Your task to perform on an android device: delete the emails in spam in the gmail app Image 0: 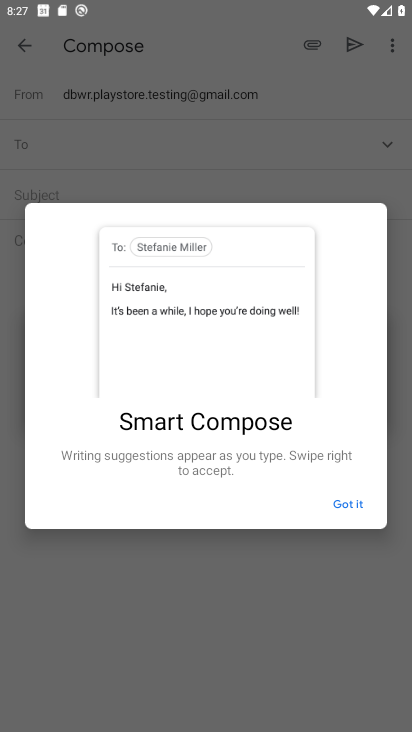
Step 0: press home button
Your task to perform on an android device: delete the emails in spam in the gmail app Image 1: 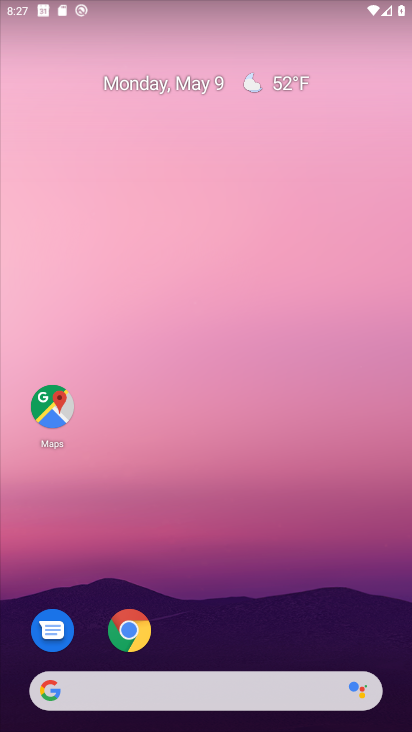
Step 1: drag from (195, 640) to (257, 100)
Your task to perform on an android device: delete the emails in spam in the gmail app Image 2: 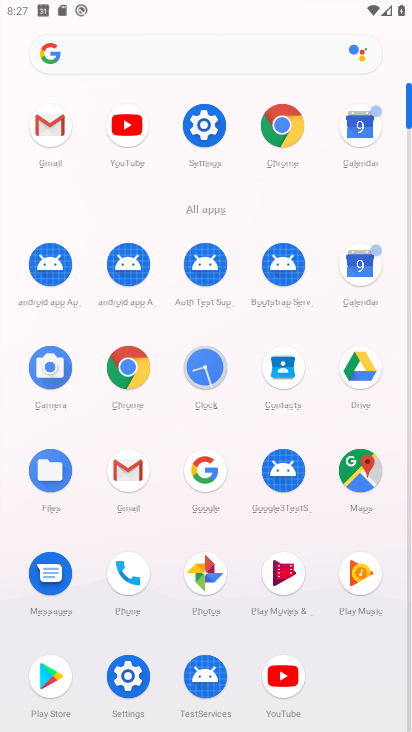
Step 2: click (135, 471)
Your task to perform on an android device: delete the emails in spam in the gmail app Image 3: 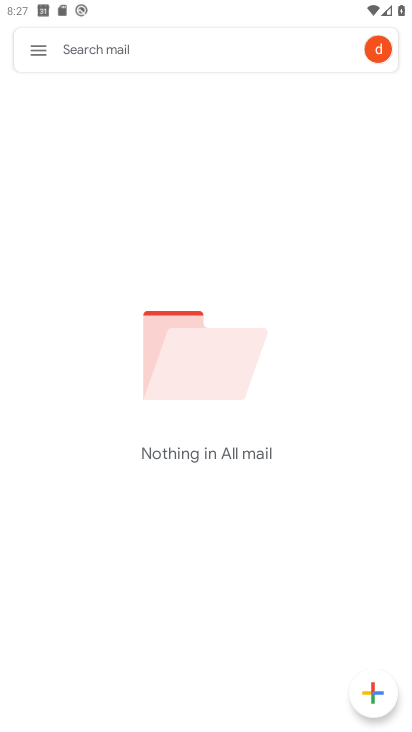
Step 3: click (44, 52)
Your task to perform on an android device: delete the emails in spam in the gmail app Image 4: 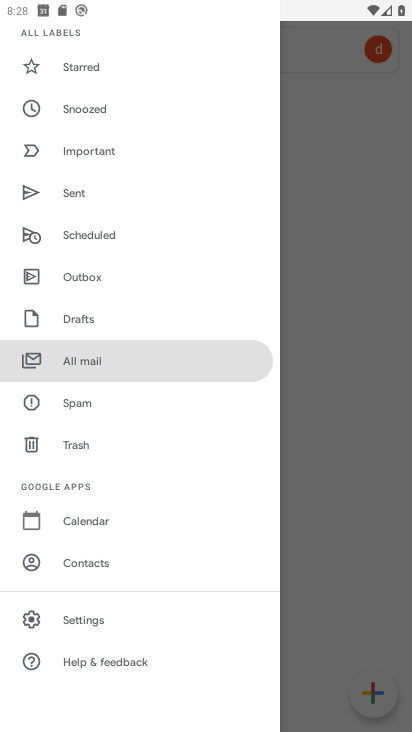
Step 4: click (96, 397)
Your task to perform on an android device: delete the emails in spam in the gmail app Image 5: 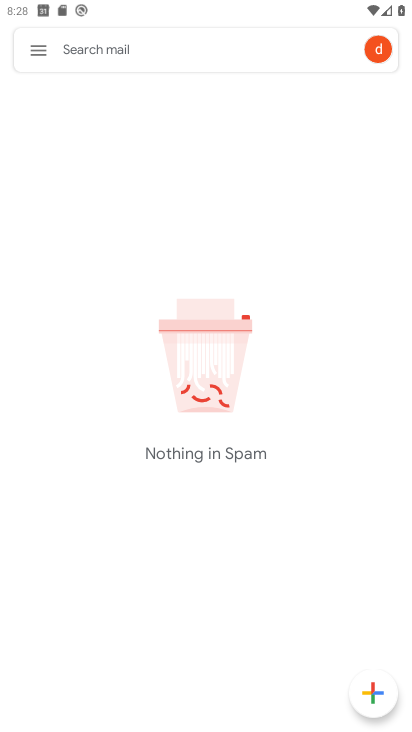
Step 5: task complete